Your task to perform on an android device: What is the news today? Image 0: 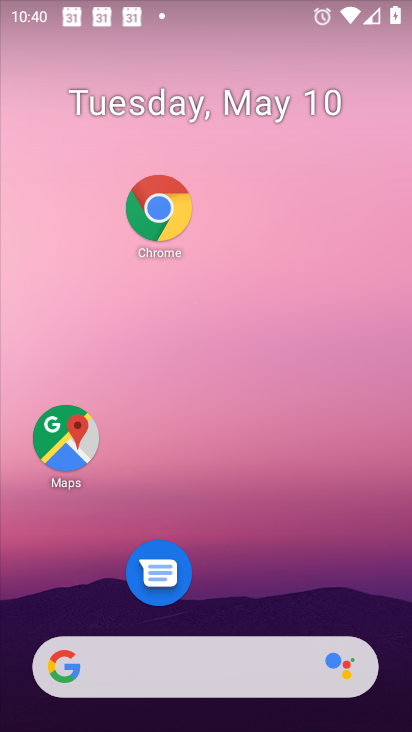
Step 0: press home button
Your task to perform on an android device: What is the news today? Image 1: 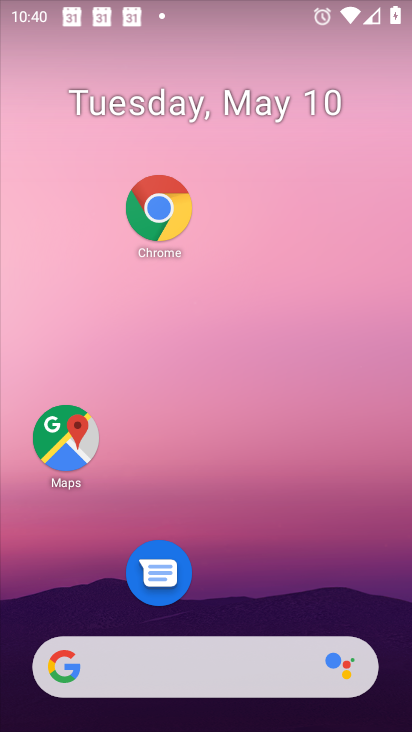
Step 1: click (236, 678)
Your task to perform on an android device: What is the news today? Image 2: 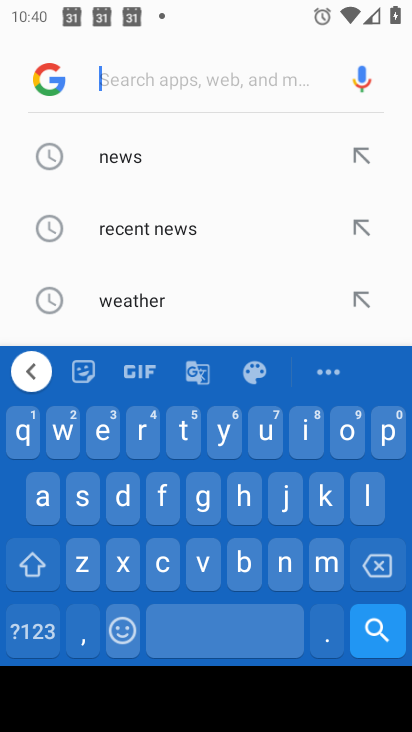
Step 2: click (159, 160)
Your task to perform on an android device: What is the news today? Image 3: 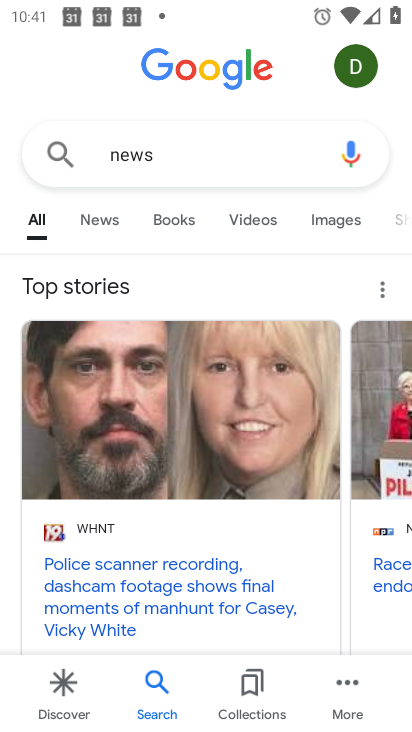
Step 3: task complete